Your task to perform on an android device: delete a single message in the gmail app Image 0: 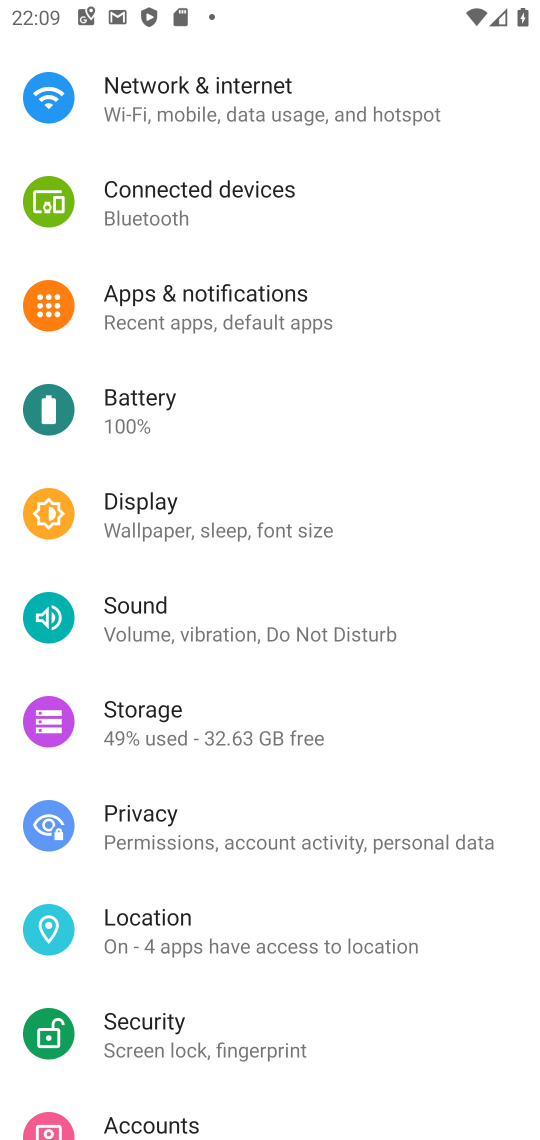
Step 0: press home button
Your task to perform on an android device: delete a single message in the gmail app Image 1: 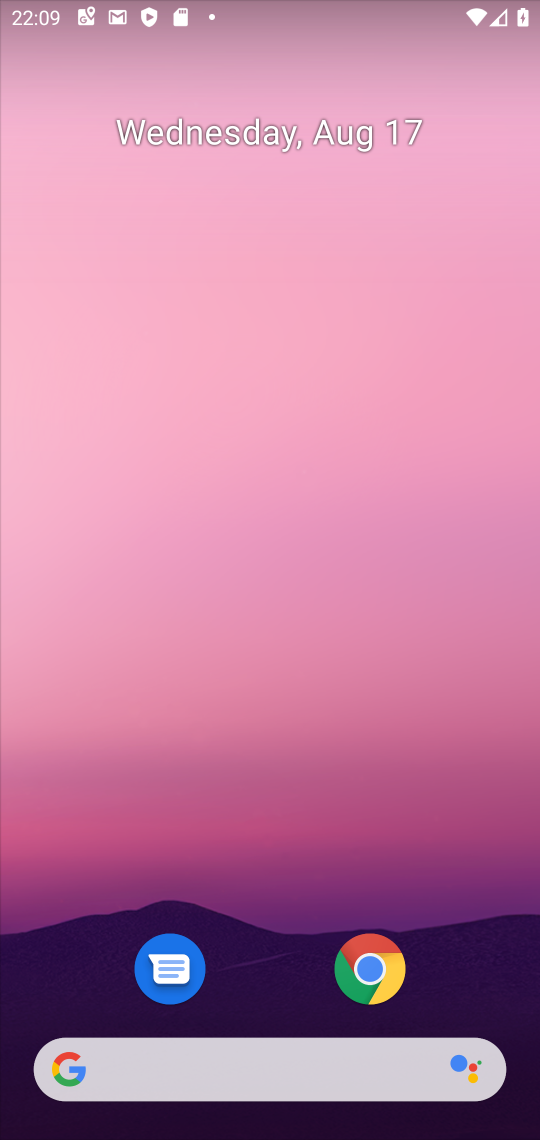
Step 1: drag from (266, 984) to (130, 149)
Your task to perform on an android device: delete a single message in the gmail app Image 2: 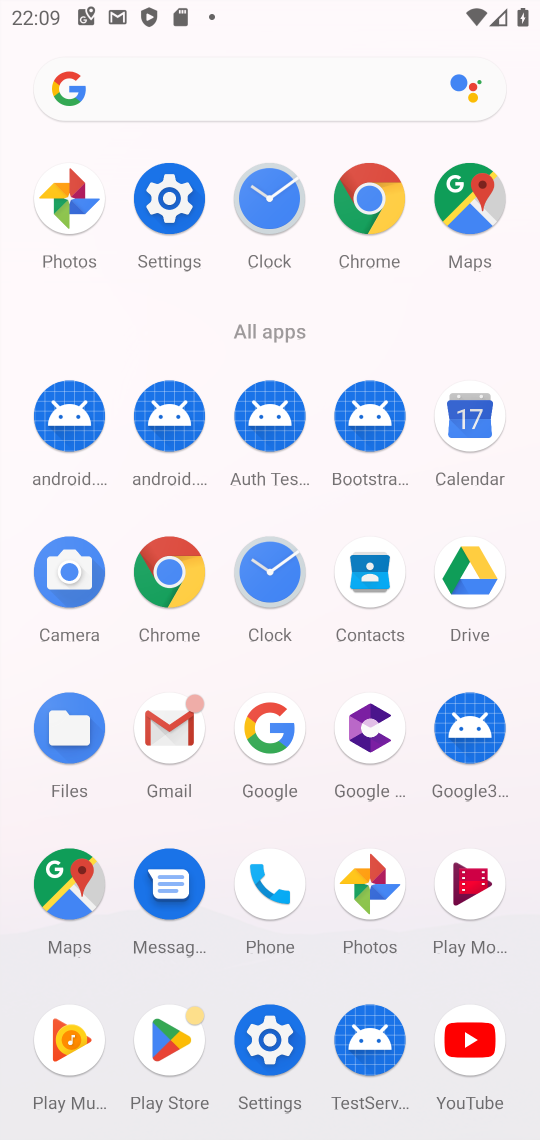
Step 2: click (169, 731)
Your task to perform on an android device: delete a single message in the gmail app Image 3: 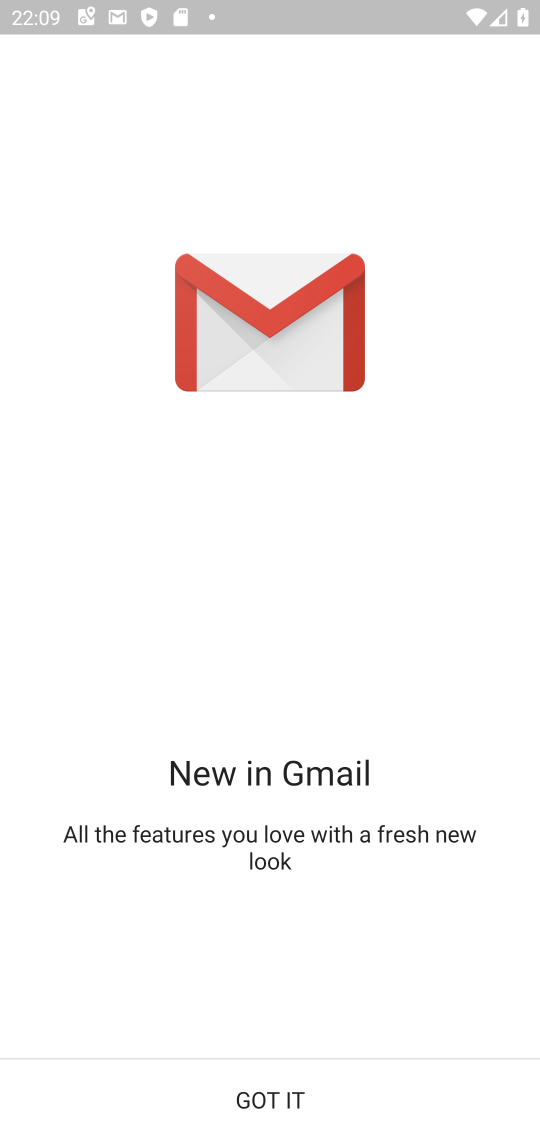
Step 3: click (273, 1097)
Your task to perform on an android device: delete a single message in the gmail app Image 4: 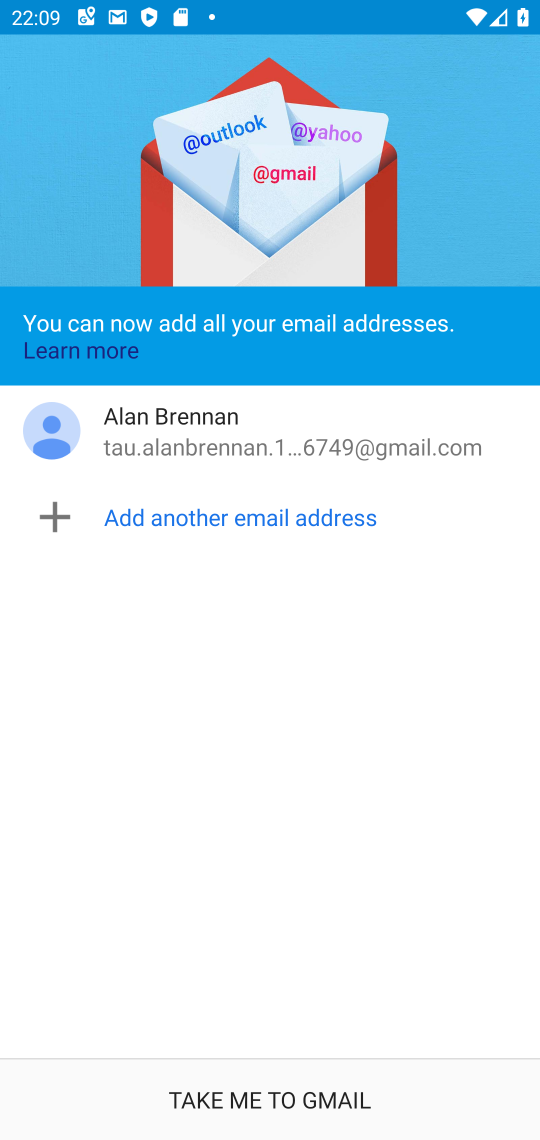
Step 4: click (273, 1097)
Your task to perform on an android device: delete a single message in the gmail app Image 5: 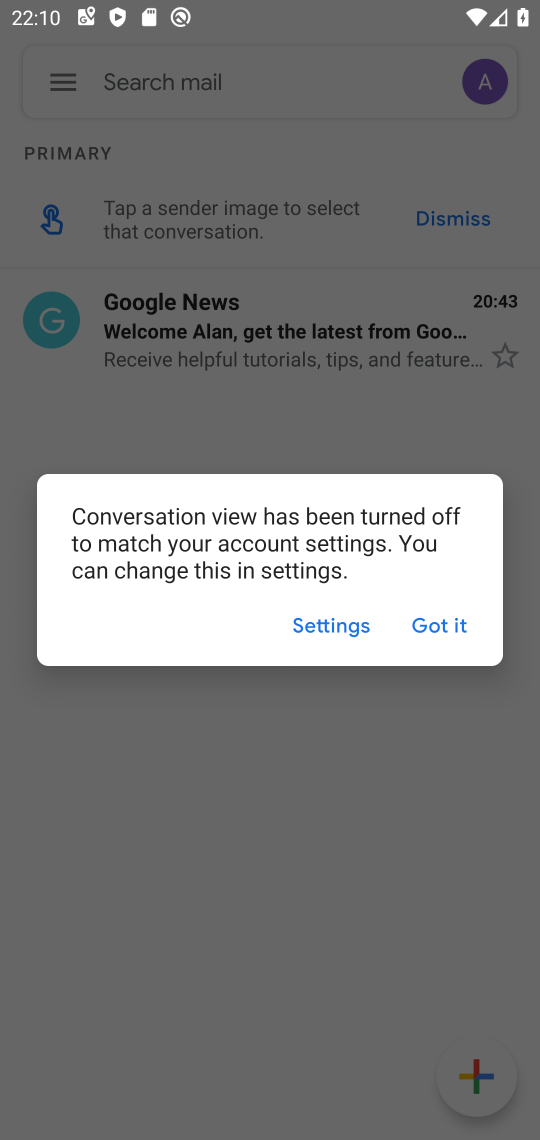
Step 5: click (430, 616)
Your task to perform on an android device: delete a single message in the gmail app Image 6: 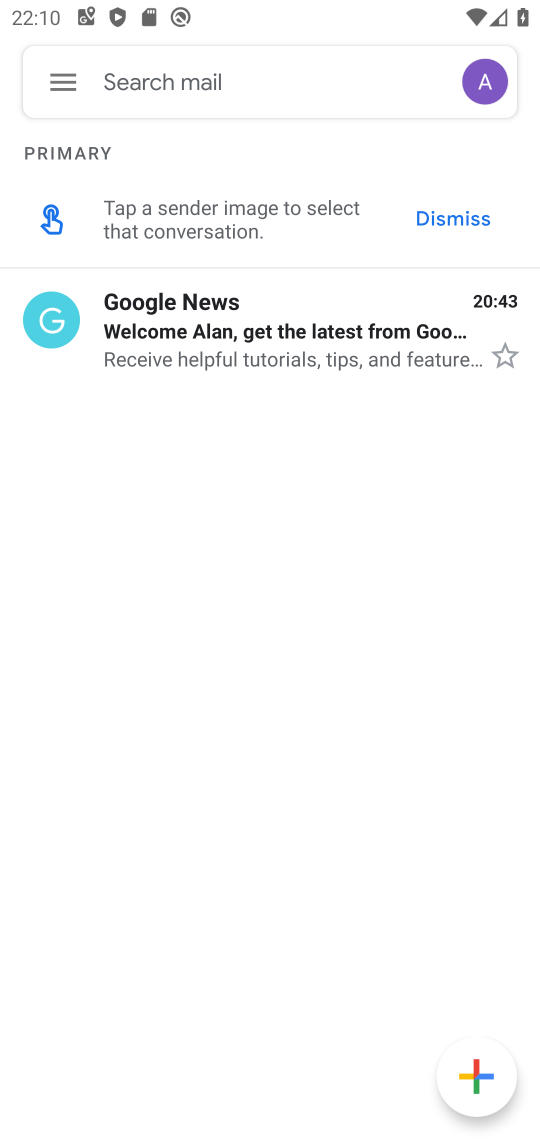
Step 6: click (265, 330)
Your task to perform on an android device: delete a single message in the gmail app Image 7: 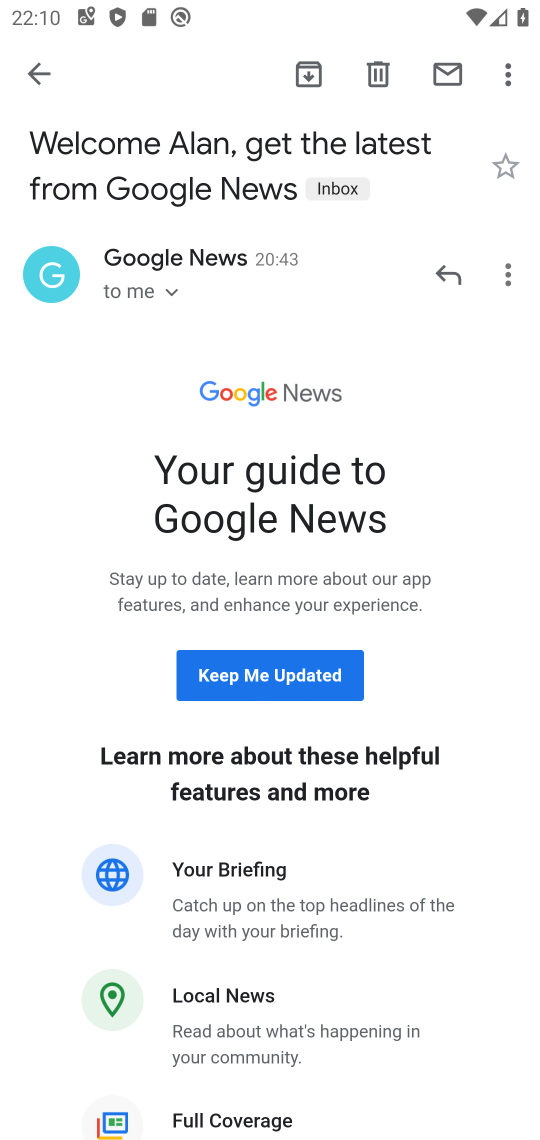
Step 7: click (377, 70)
Your task to perform on an android device: delete a single message in the gmail app Image 8: 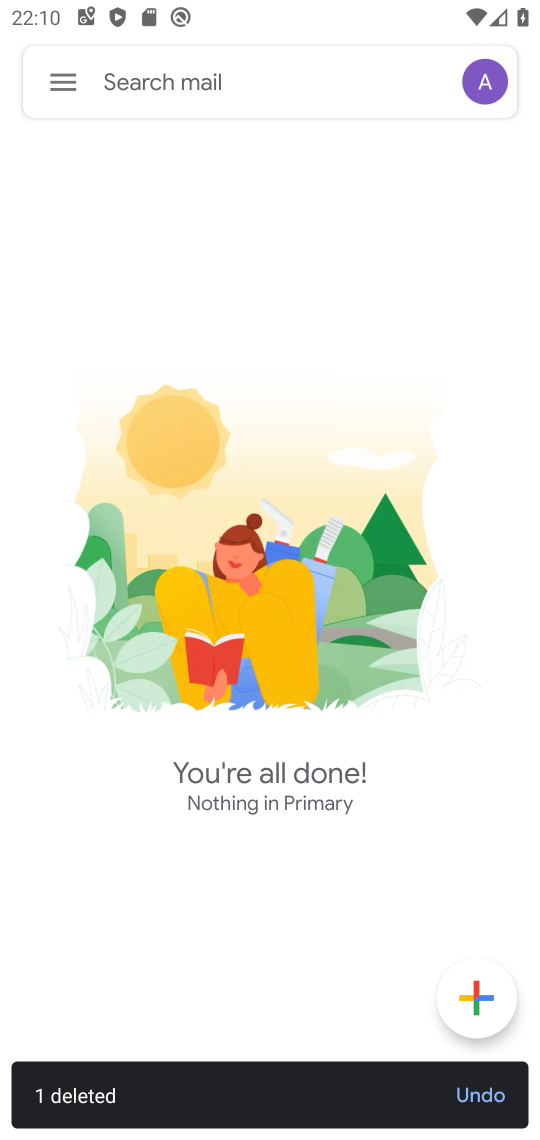
Step 8: task complete